Your task to perform on an android device: Open my contact list Image 0: 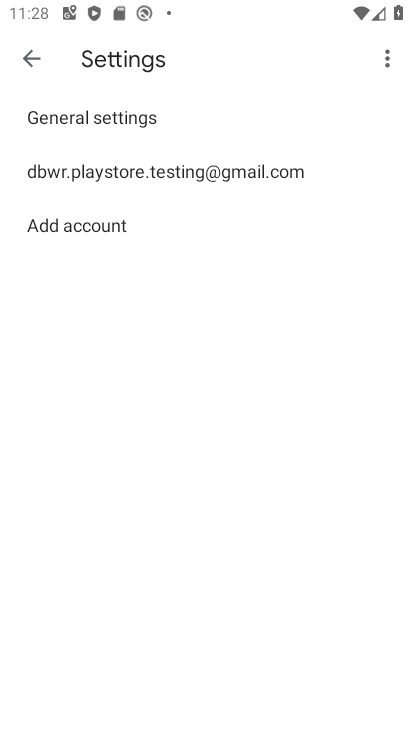
Step 0: press home button
Your task to perform on an android device: Open my contact list Image 1: 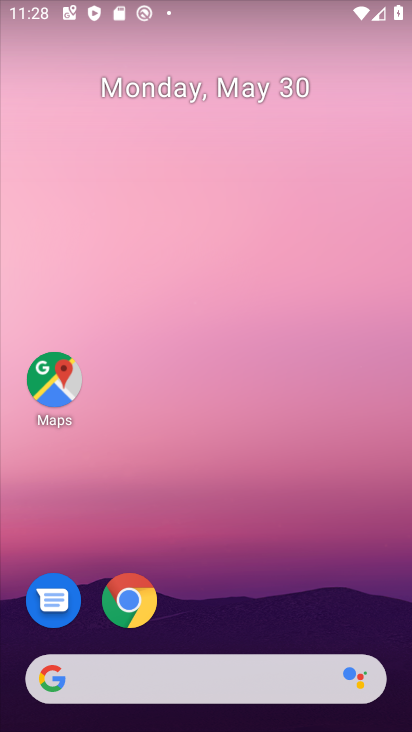
Step 1: drag from (260, 724) to (240, 10)
Your task to perform on an android device: Open my contact list Image 2: 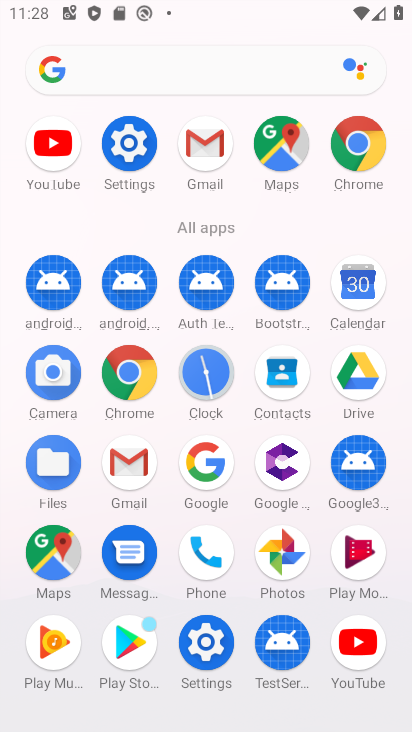
Step 2: click (283, 382)
Your task to perform on an android device: Open my contact list Image 3: 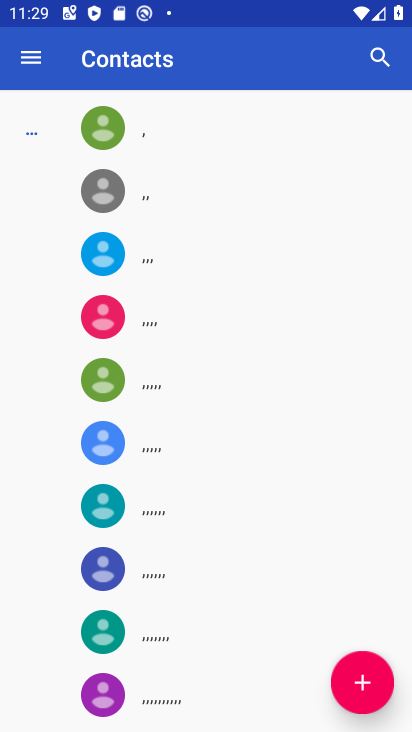
Step 3: task complete